Your task to perform on an android device: delete location history Image 0: 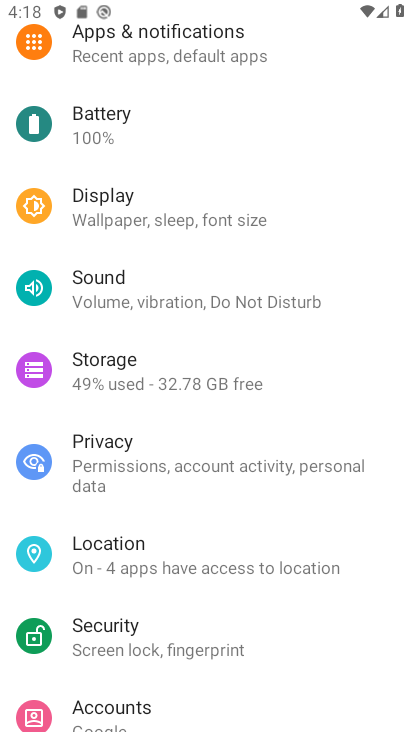
Step 0: press home button
Your task to perform on an android device: delete location history Image 1: 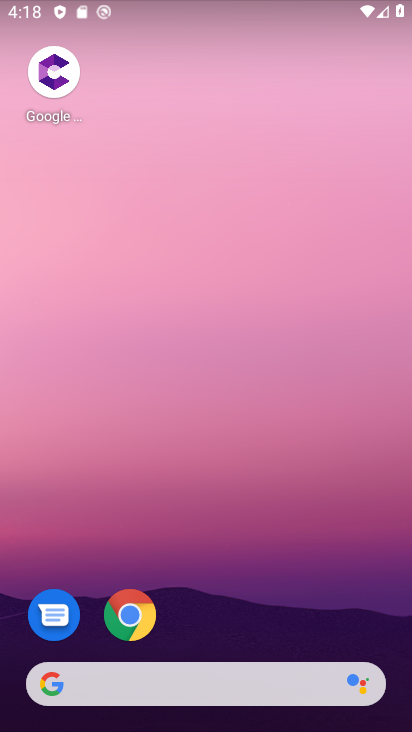
Step 1: drag from (312, 606) to (288, 83)
Your task to perform on an android device: delete location history Image 2: 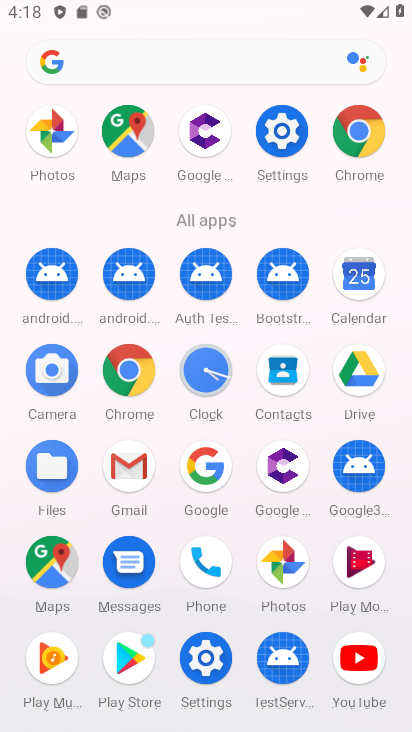
Step 2: click (74, 556)
Your task to perform on an android device: delete location history Image 3: 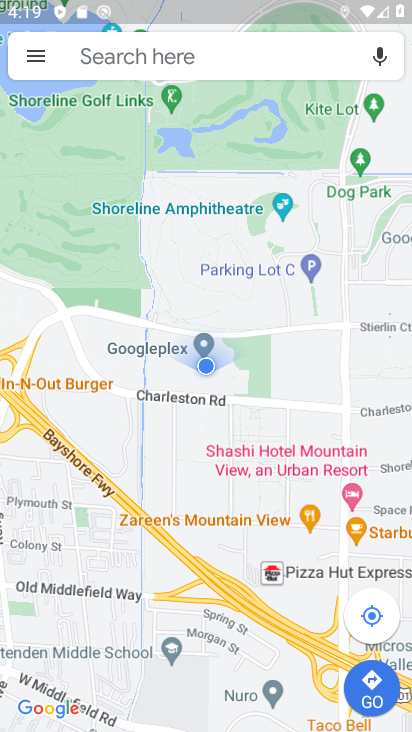
Step 3: click (28, 64)
Your task to perform on an android device: delete location history Image 4: 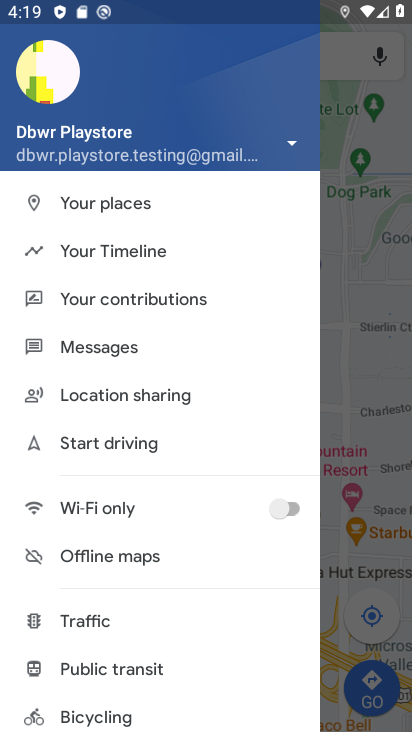
Step 4: drag from (183, 682) to (258, 603)
Your task to perform on an android device: delete location history Image 5: 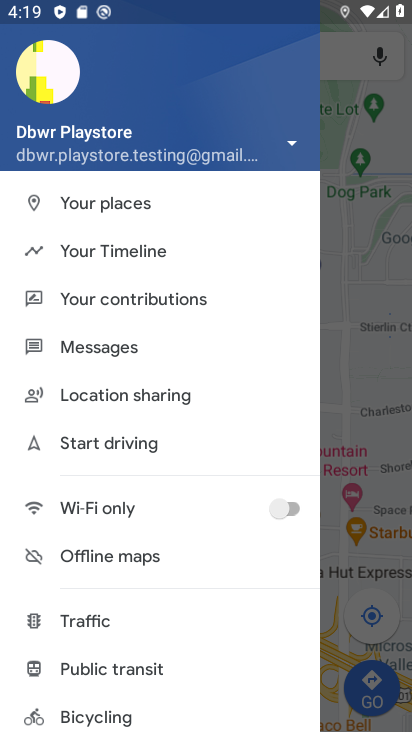
Step 5: click (139, 251)
Your task to perform on an android device: delete location history Image 6: 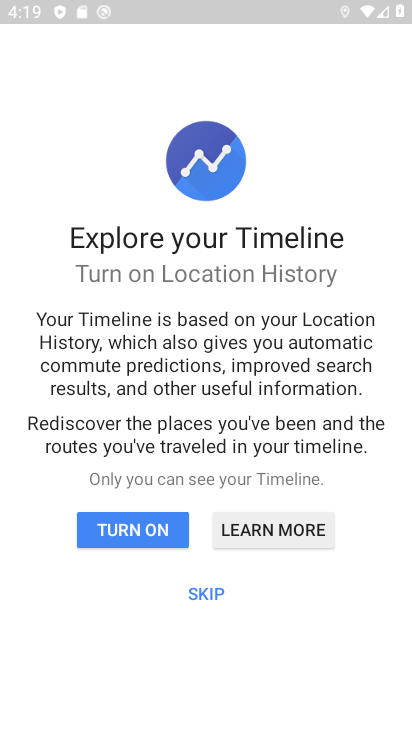
Step 6: click (216, 596)
Your task to perform on an android device: delete location history Image 7: 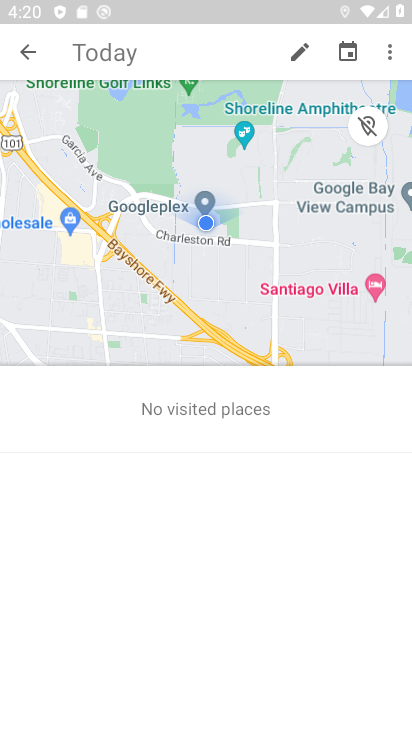
Step 7: drag from (387, 53) to (295, 341)
Your task to perform on an android device: delete location history Image 8: 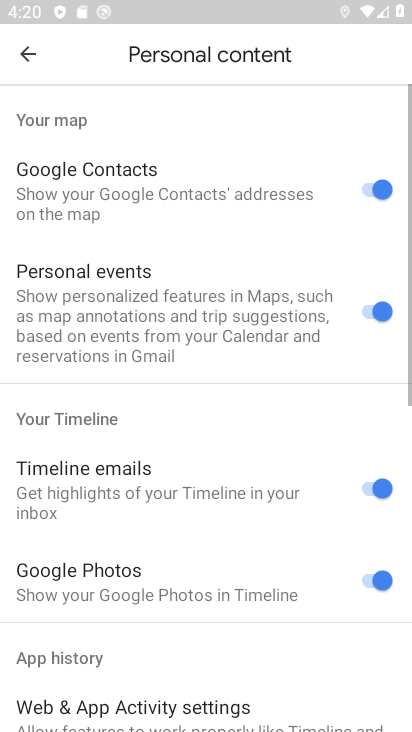
Step 8: drag from (236, 631) to (183, 190)
Your task to perform on an android device: delete location history Image 9: 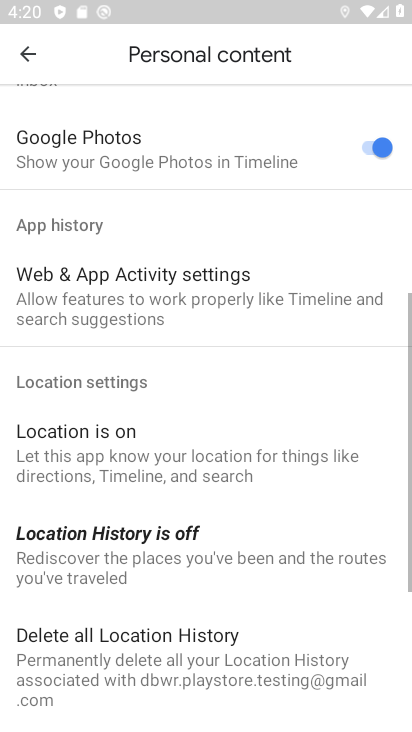
Step 9: drag from (245, 640) to (158, 194)
Your task to perform on an android device: delete location history Image 10: 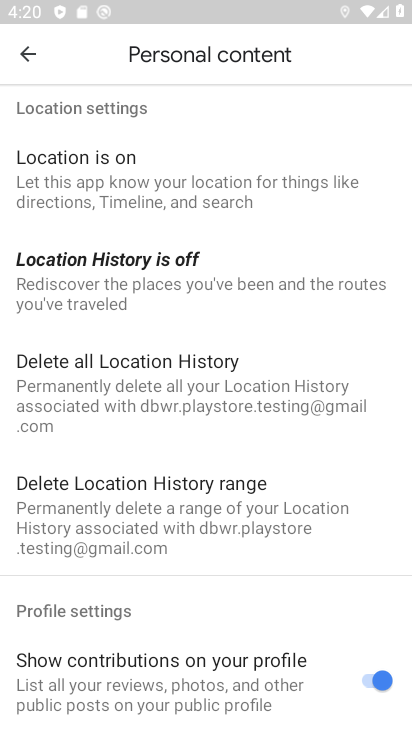
Step 10: click (135, 400)
Your task to perform on an android device: delete location history Image 11: 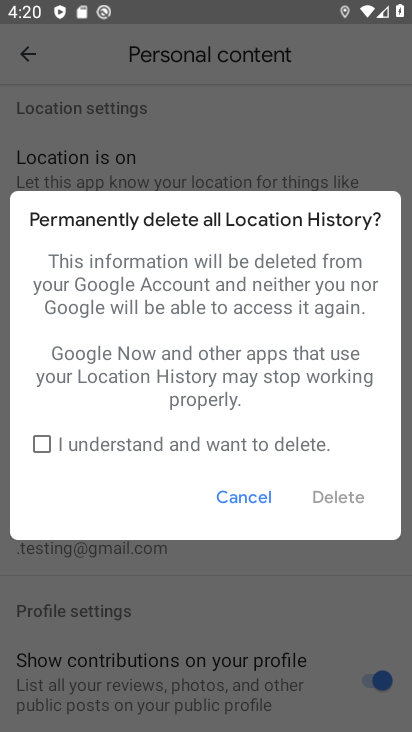
Step 11: click (218, 458)
Your task to perform on an android device: delete location history Image 12: 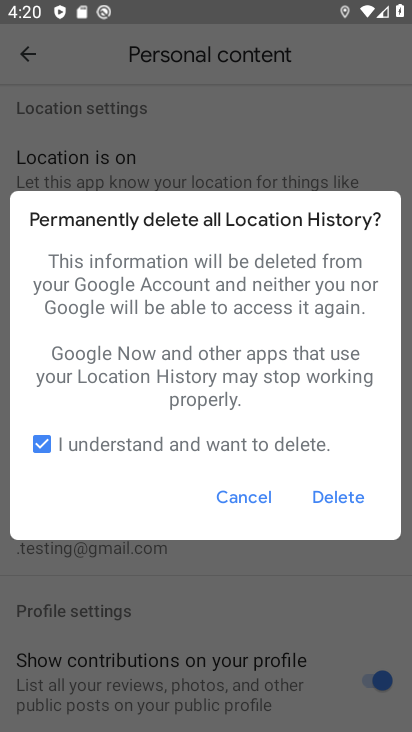
Step 12: click (343, 490)
Your task to perform on an android device: delete location history Image 13: 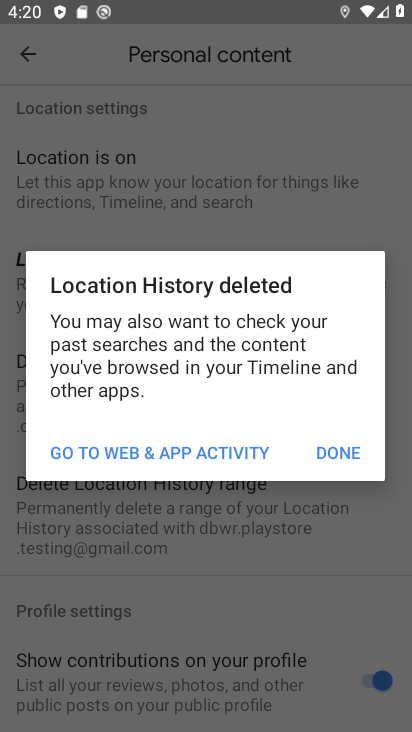
Step 13: click (338, 456)
Your task to perform on an android device: delete location history Image 14: 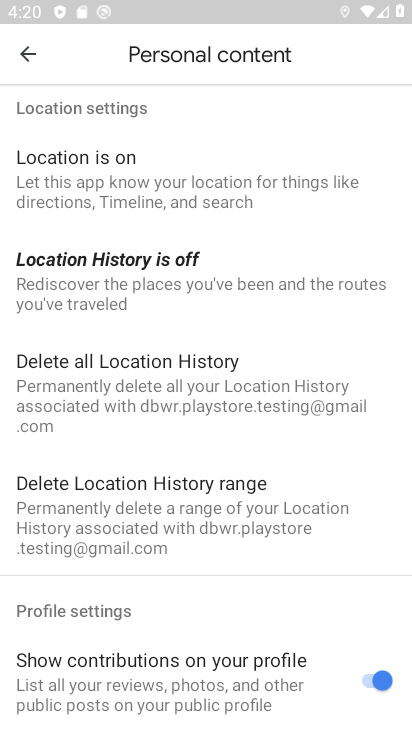
Step 14: task complete